Your task to perform on an android device: change notifications settings Image 0: 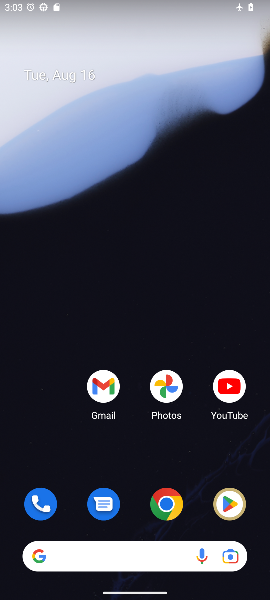
Step 0: drag from (135, 476) to (41, 38)
Your task to perform on an android device: change notifications settings Image 1: 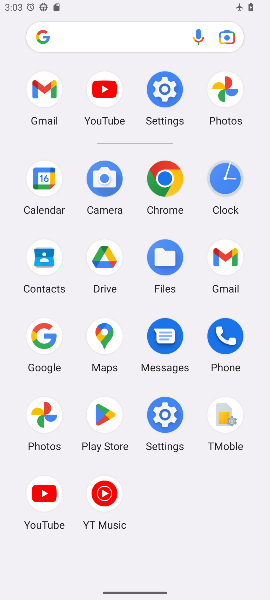
Step 1: click (165, 88)
Your task to perform on an android device: change notifications settings Image 2: 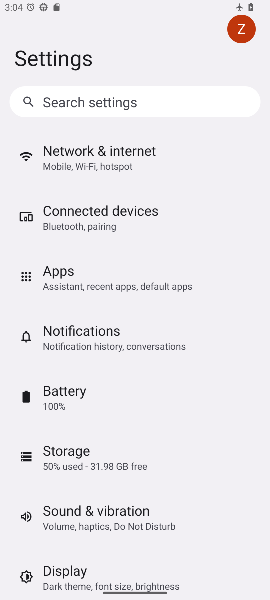
Step 2: click (71, 323)
Your task to perform on an android device: change notifications settings Image 3: 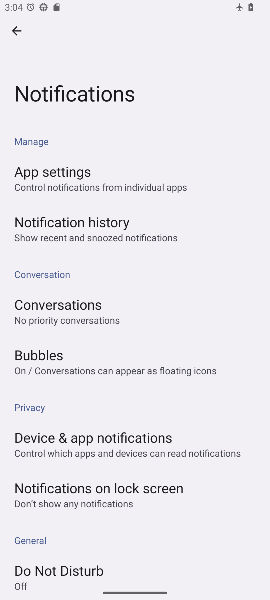
Step 3: click (67, 169)
Your task to perform on an android device: change notifications settings Image 4: 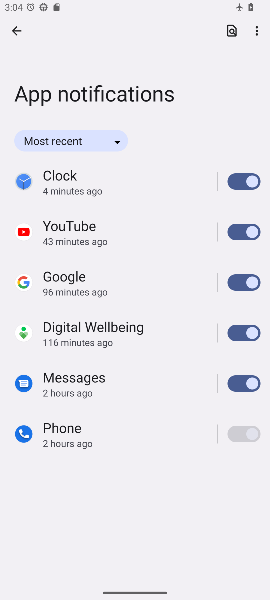
Step 4: click (103, 141)
Your task to perform on an android device: change notifications settings Image 5: 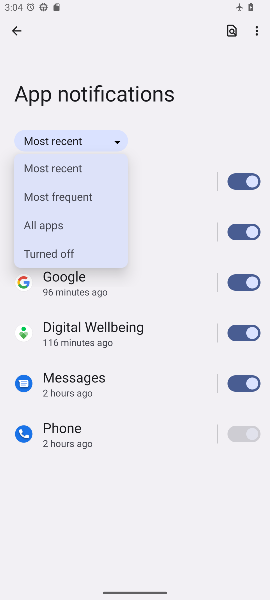
Step 5: click (50, 249)
Your task to perform on an android device: change notifications settings Image 6: 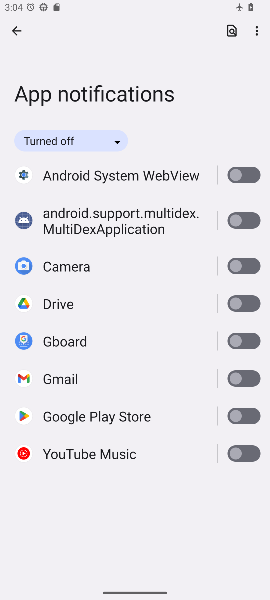
Step 6: task complete